Your task to perform on an android device: What's the weather like in Beijing? Image 0: 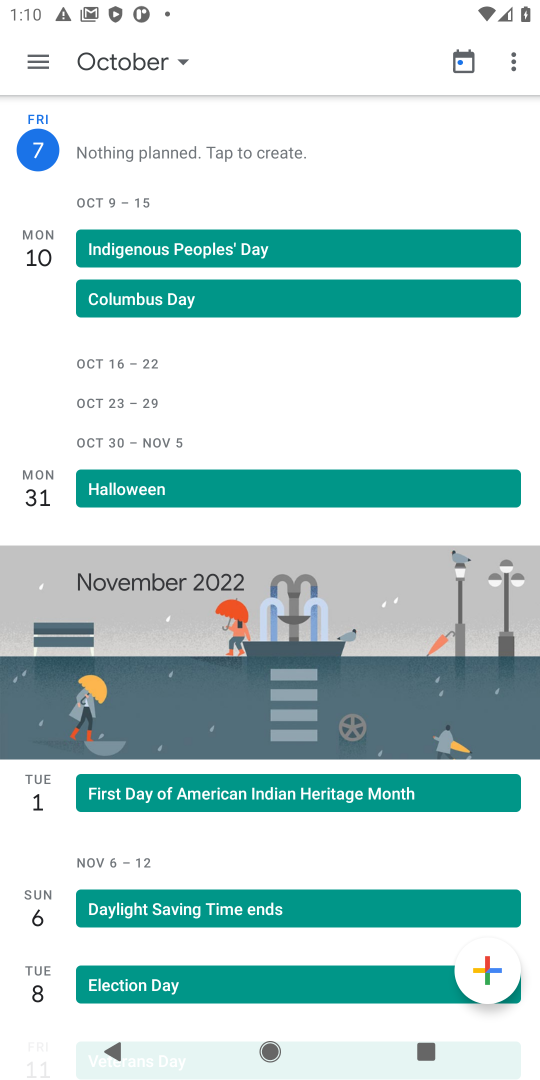
Step 0: press home button
Your task to perform on an android device: What's the weather like in Beijing? Image 1: 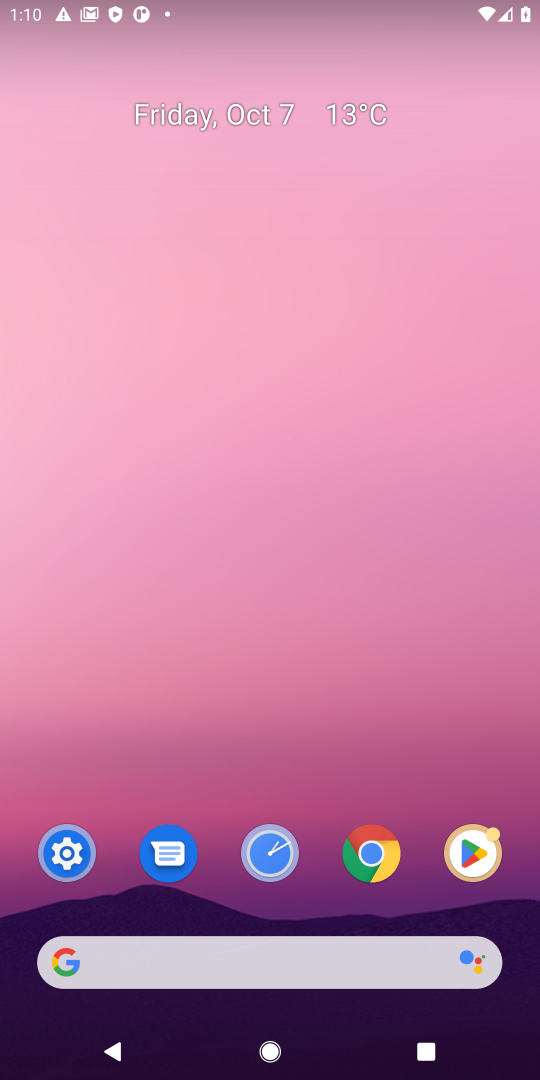
Step 1: click (299, 944)
Your task to perform on an android device: What's the weather like in Beijing? Image 2: 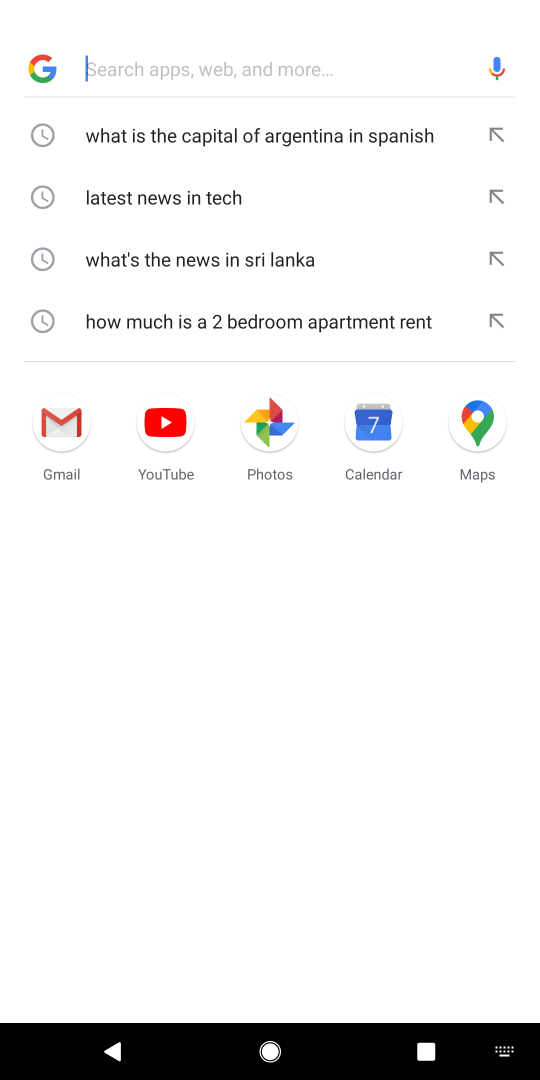
Step 2: type "What's the weather like in Beijing?"
Your task to perform on an android device: What's the weather like in Beijing? Image 3: 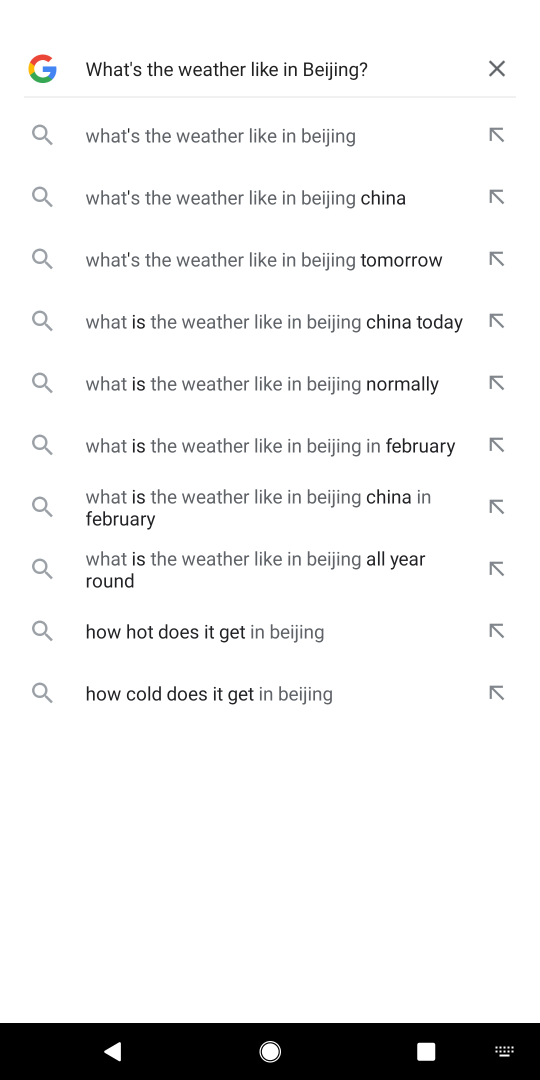
Step 3: type "What's the weather like in Beijing?"
Your task to perform on an android device: What's the weather like in Beijing? Image 4: 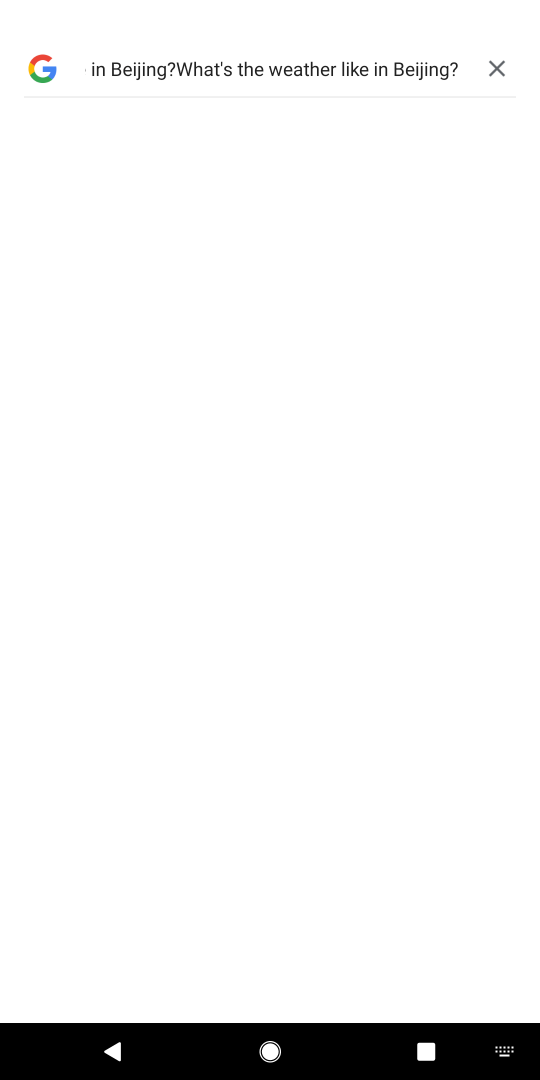
Step 4: click (298, 57)
Your task to perform on an android device: What's the weather like in Beijing? Image 5: 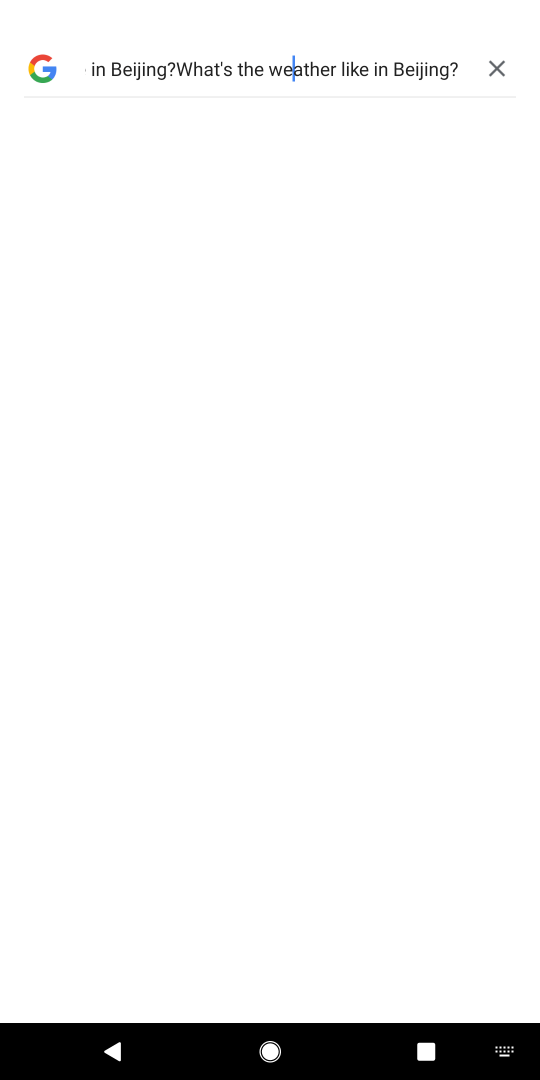
Step 5: click (494, 69)
Your task to perform on an android device: What's the weather like in Beijing? Image 6: 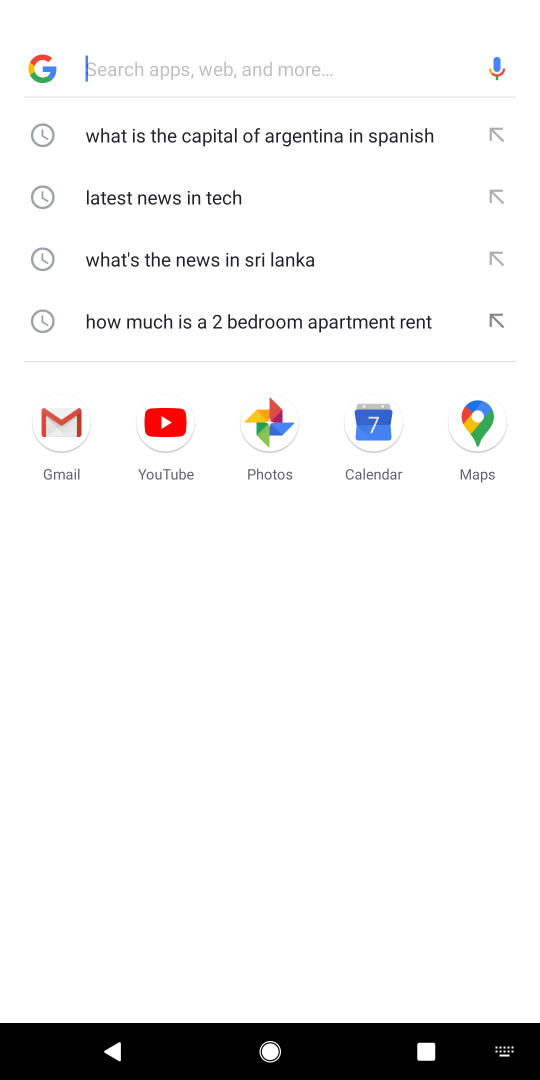
Step 6: type "What's the weather like in Beijing?"
Your task to perform on an android device: What's the weather like in Beijing? Image 7: 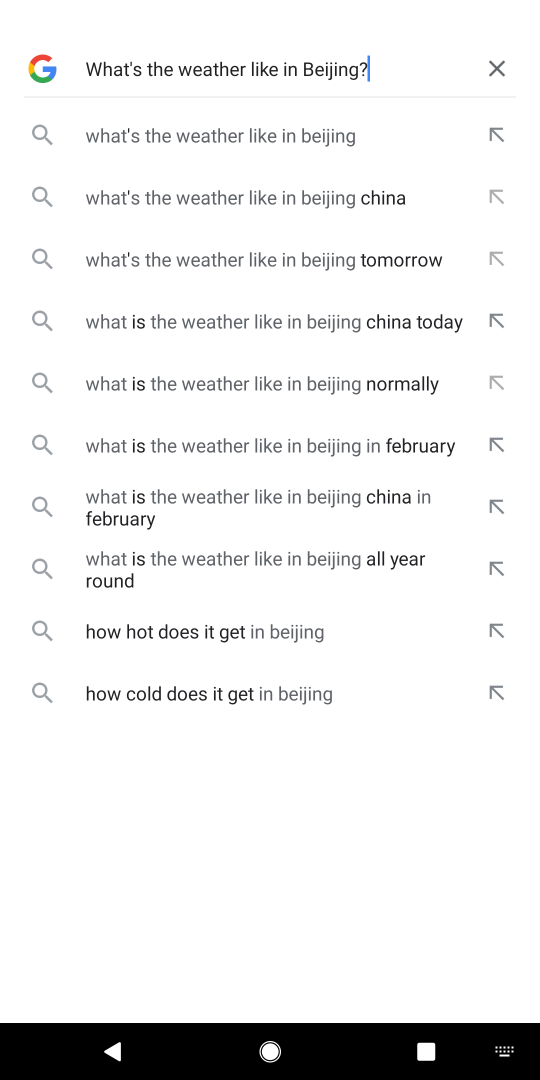
Step 7: click (266, 126)
Your task to perform on an android device: What's the weather like in Beijing? Image 8: 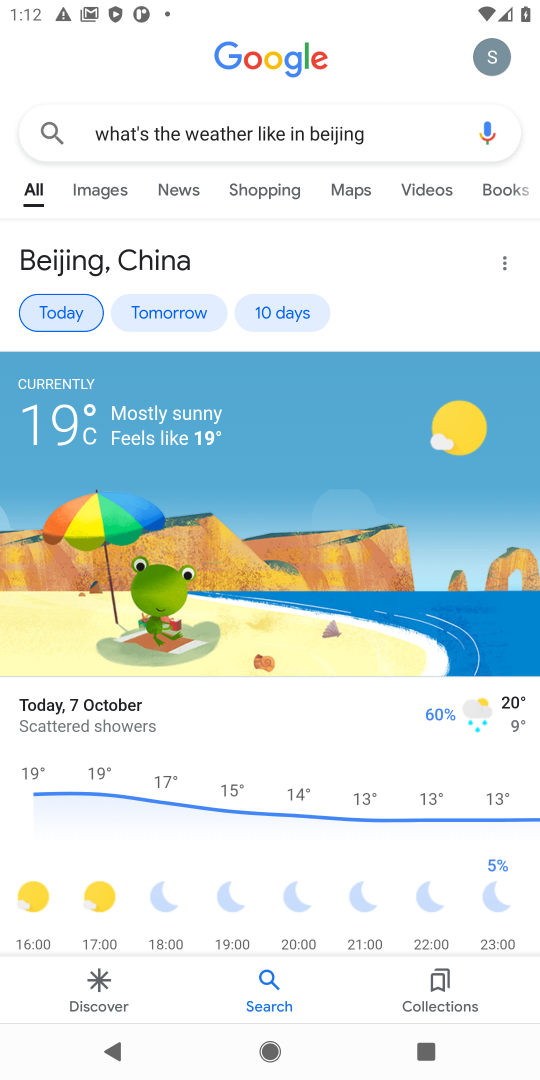
Step 8: task complete